Your task to perform on an android device: Clear the cart on walmart.com. Image 0: 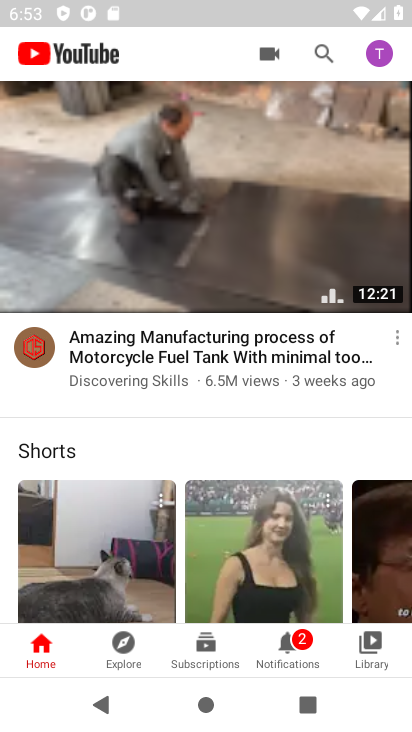
Step 0: press home button
Your task to perform on an android device: Clear the cart on walmart.com. Image 1: 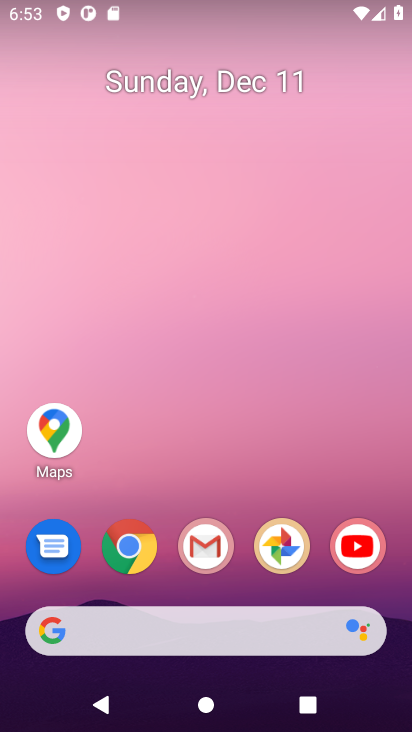
Step 1: click (136, 560)
Your task to perform on an android device: Clear the cart on walmart.com. Image 2: 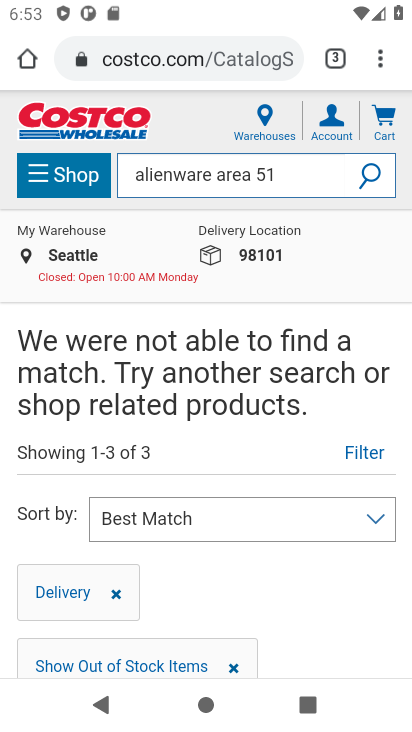
Step 2: click (195, 62)
Your task to perform on an android device: Clear the cart on walmart.com. Image 3: 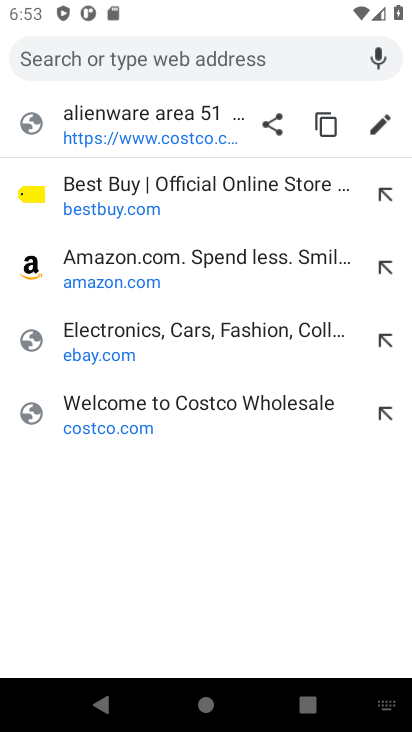
Step 3: type "walmart.com"
Your task to perform on an android device: Clear the cart on walmart.com. Image 4: 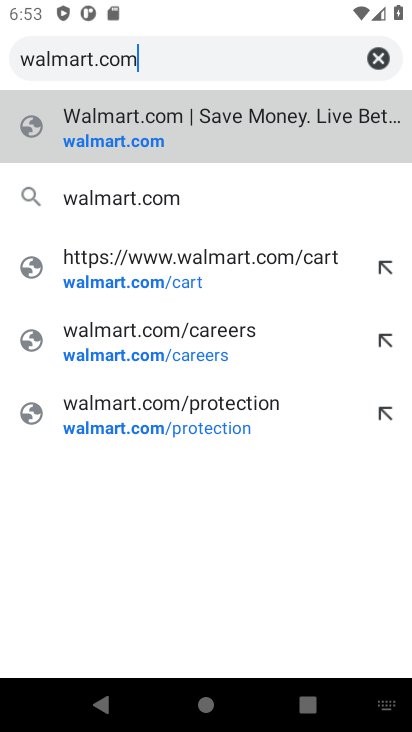
Step 4: click (110, 145)
Your task to perform on an android device: Clear the cart on walmart.com. Image 5: 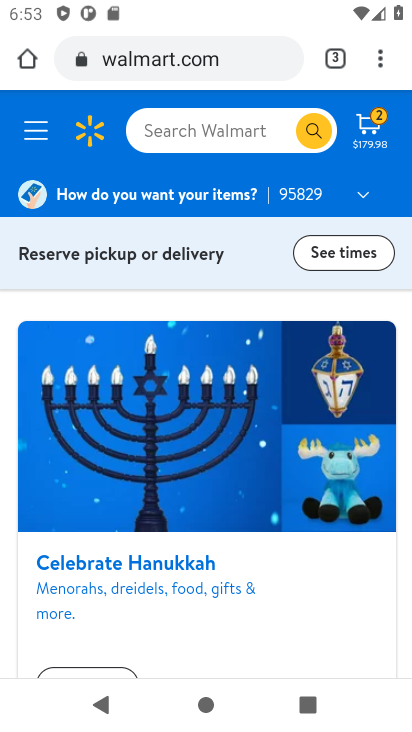
Step 5: click (371, 136)
Your task to perform on an android device: Clear the cart on walmart.com. Image 6: 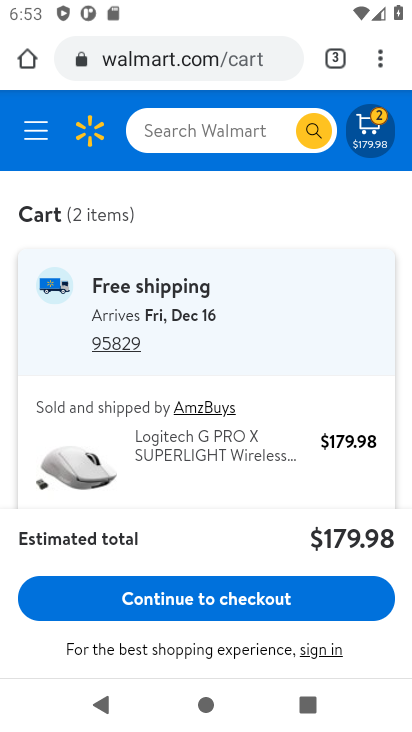
Step 6: drag from (225, 454) to (233, 211)
Your task to perform on an android device: Clear the cart on walmart.com. Image 7: 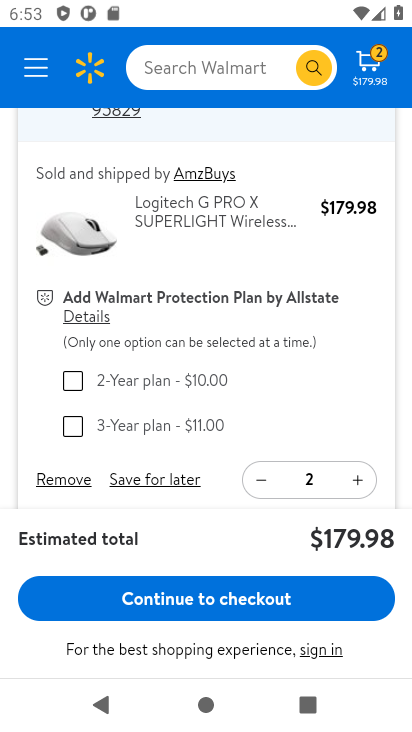
Step 7: click (44, 481)
Your task to perform on an android device: Clear the cart on walmart.com. Image 8: 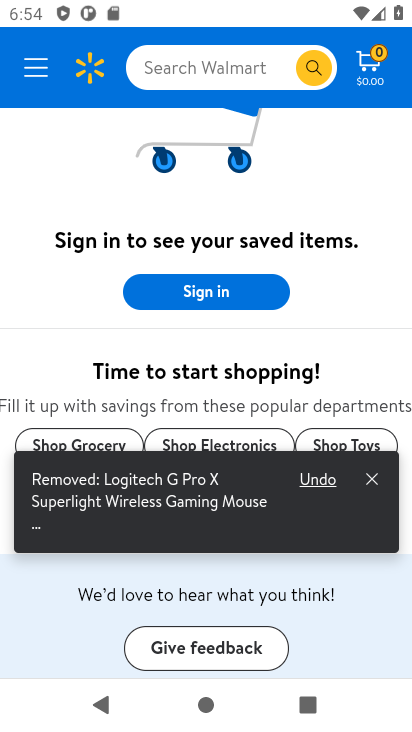
Step 8: task complete